Your task to perform on an android device: find snoozed emails in the gmail app Image 0: 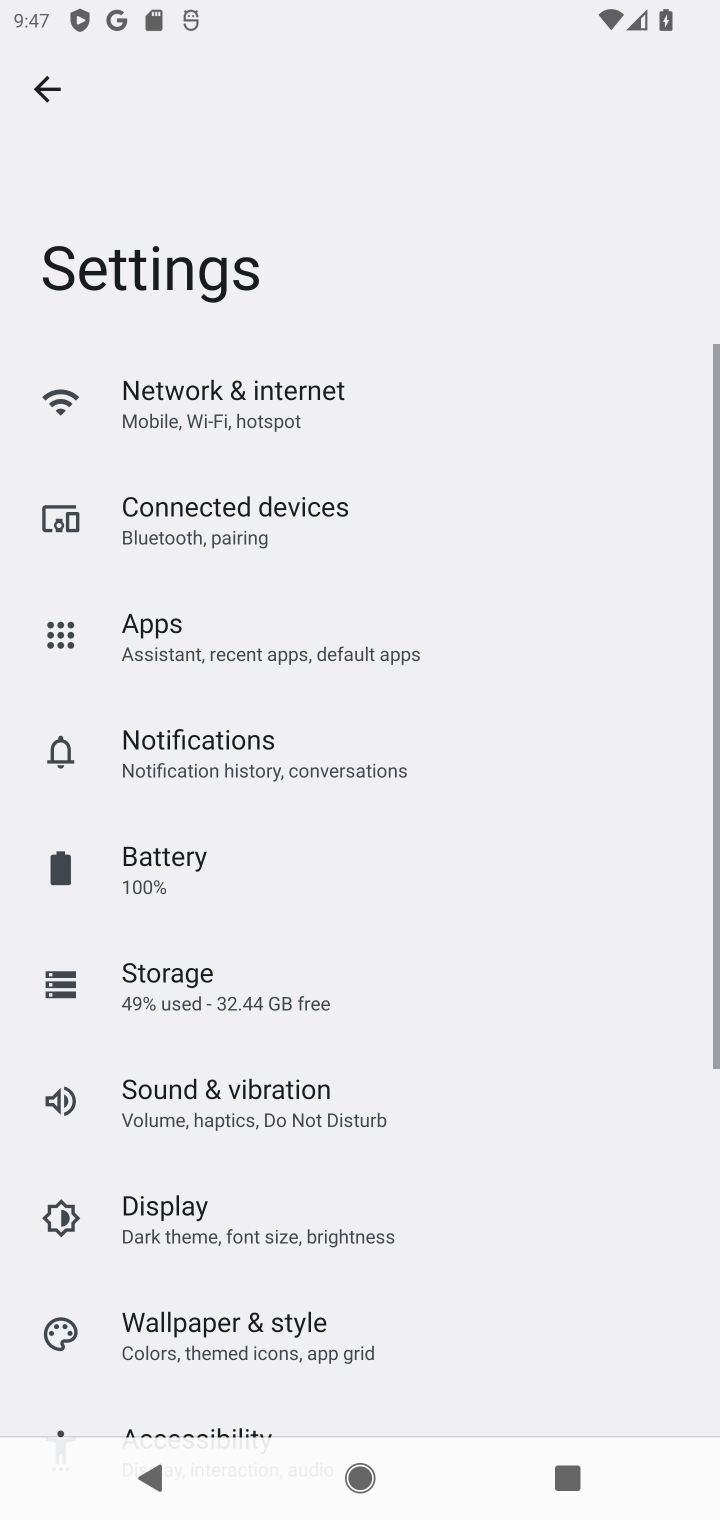
Step 0: press back button
Your task to perform on an android device: find snoozed emails in the gmail app Image 1: 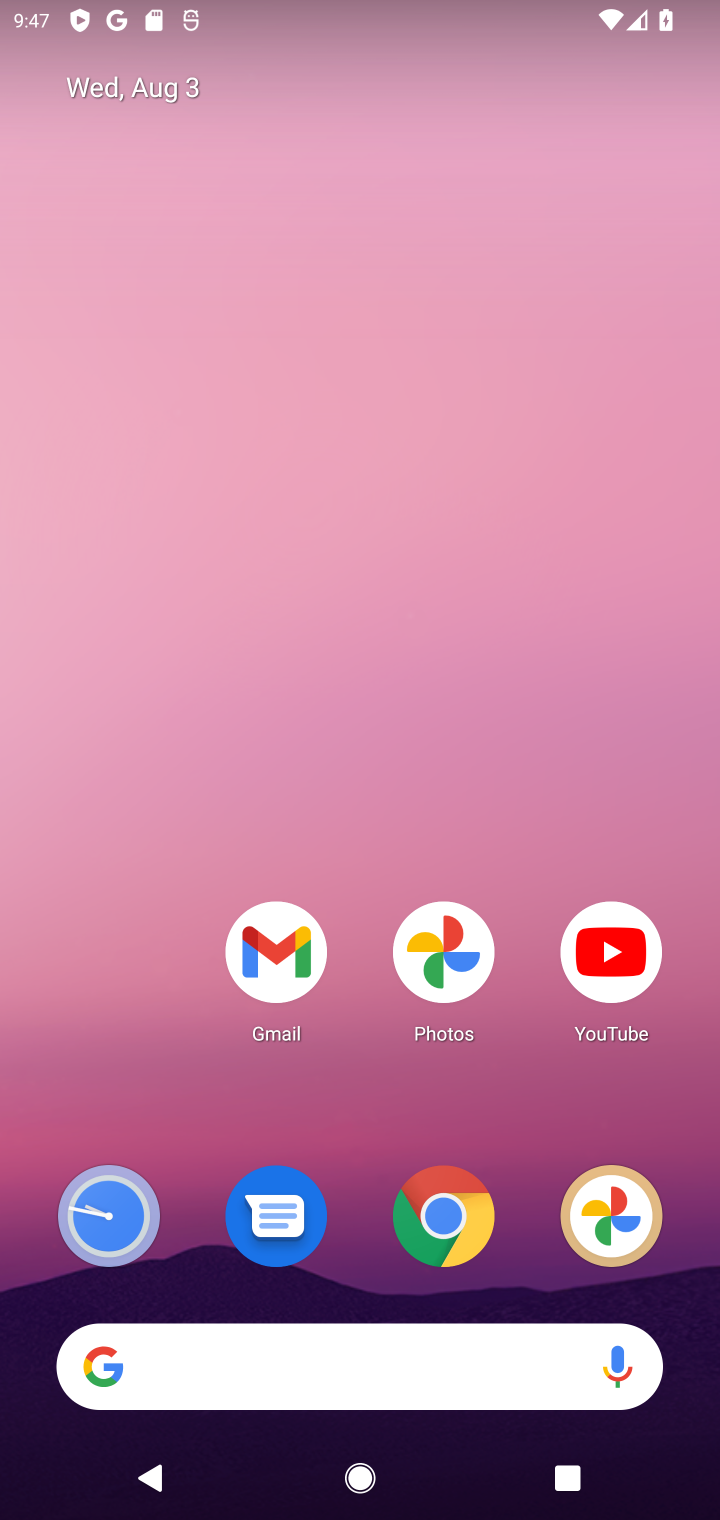
Step 1: click (289, 959)
Your task to perform on an android device: find snoozed emails in the gmail app Image 2: 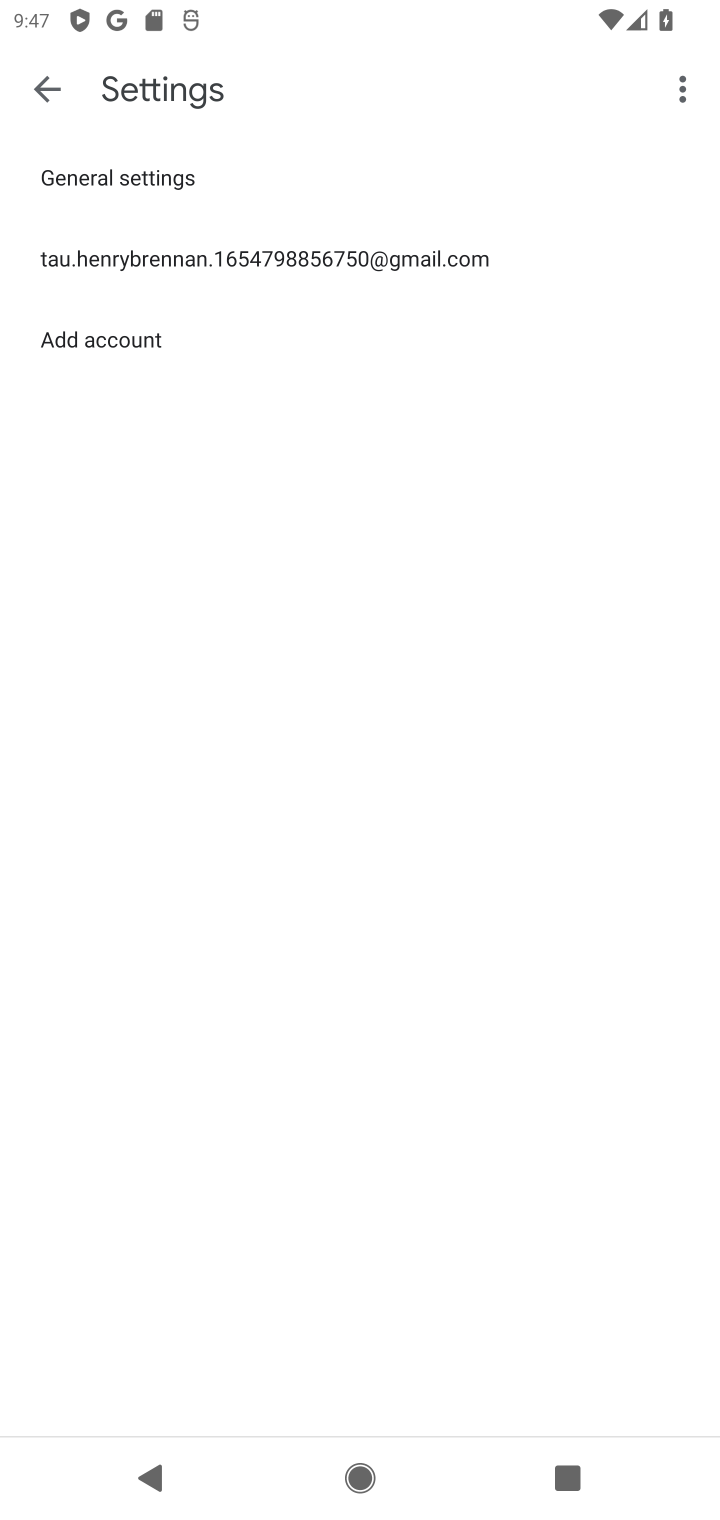
Step 2: click (45, 92)
Your task to perform on an android device: find snoozed emails in the gmail app Image 3: 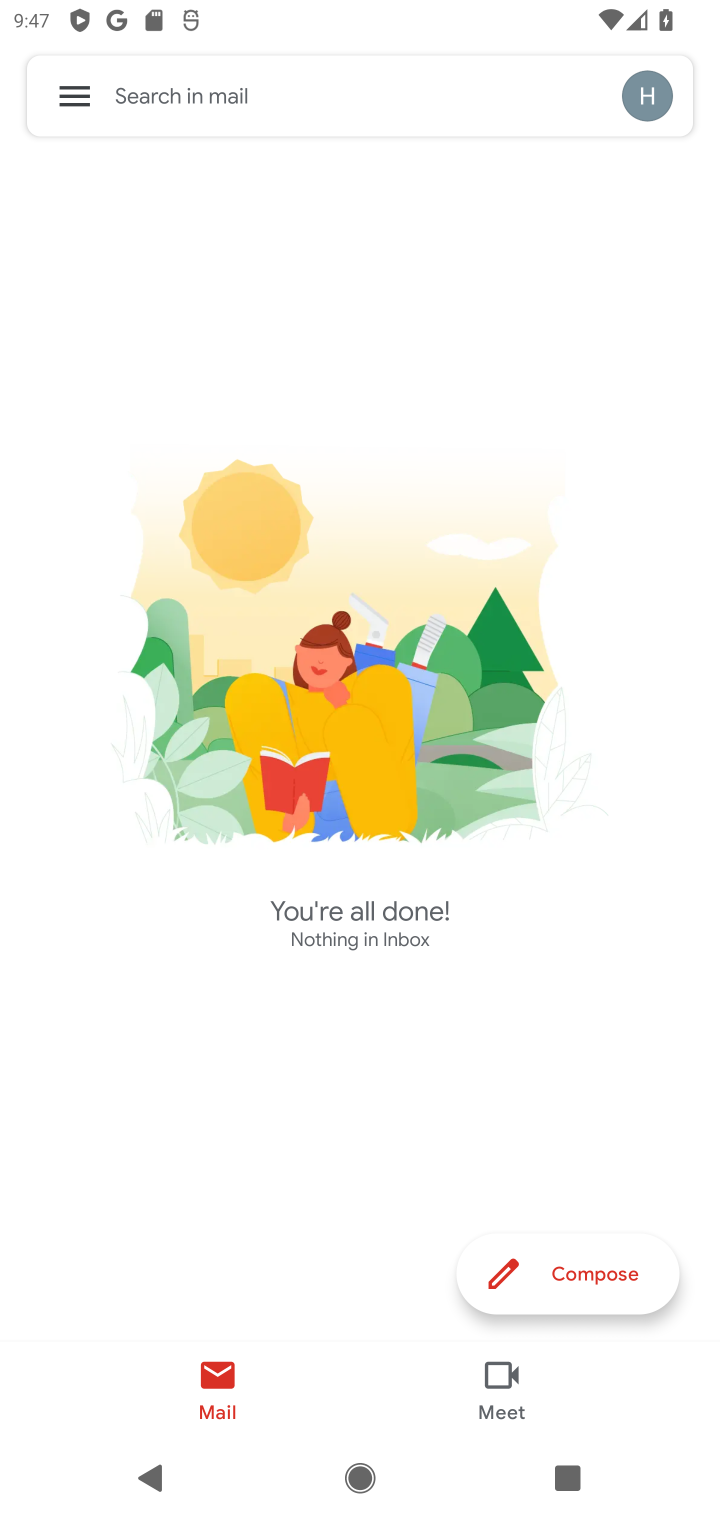
Step 3: click (68, 91)
Your task to perform on an android device: find snoozed emails in the gmail app Image 4: 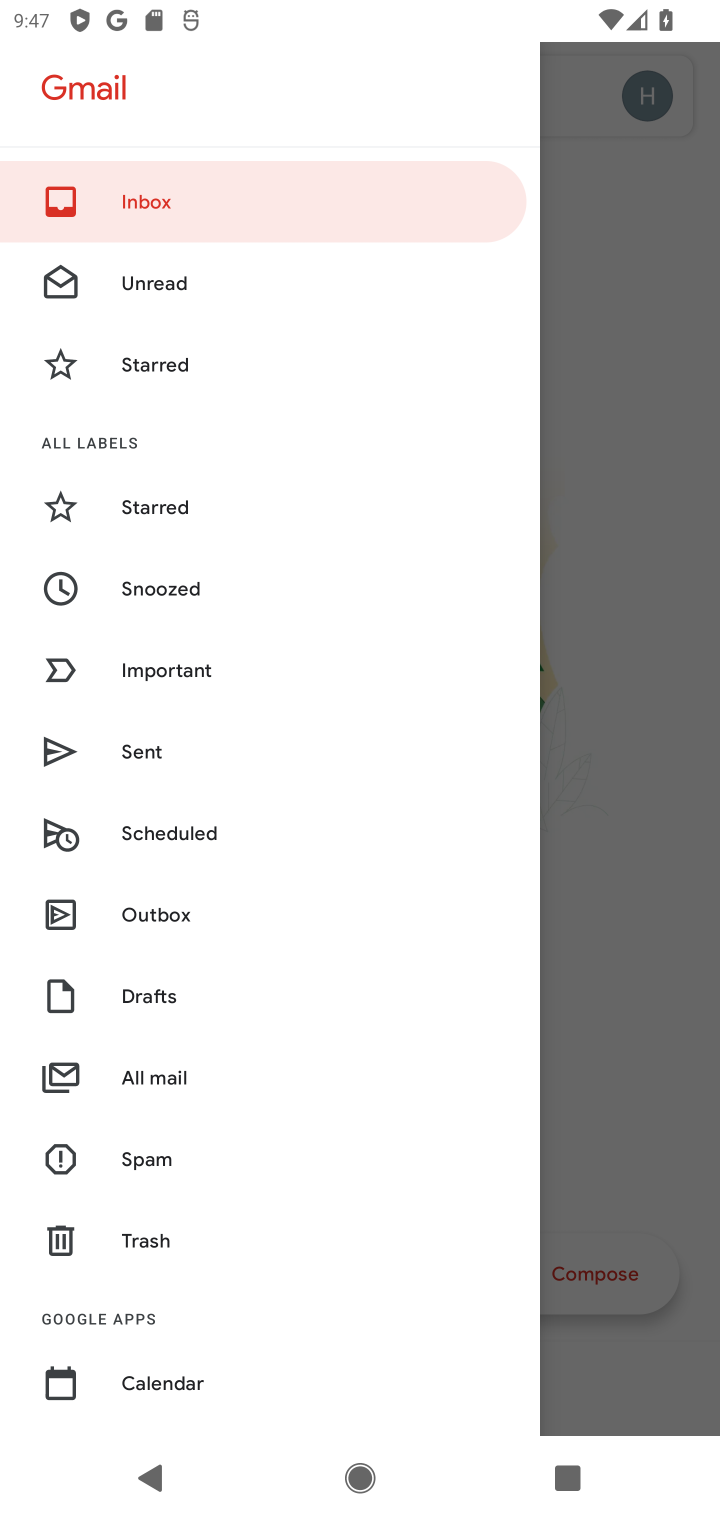
Step 4: click (186, 586)
Your task to perform on an android device: find snoozed emails in the gmail app Image 5: 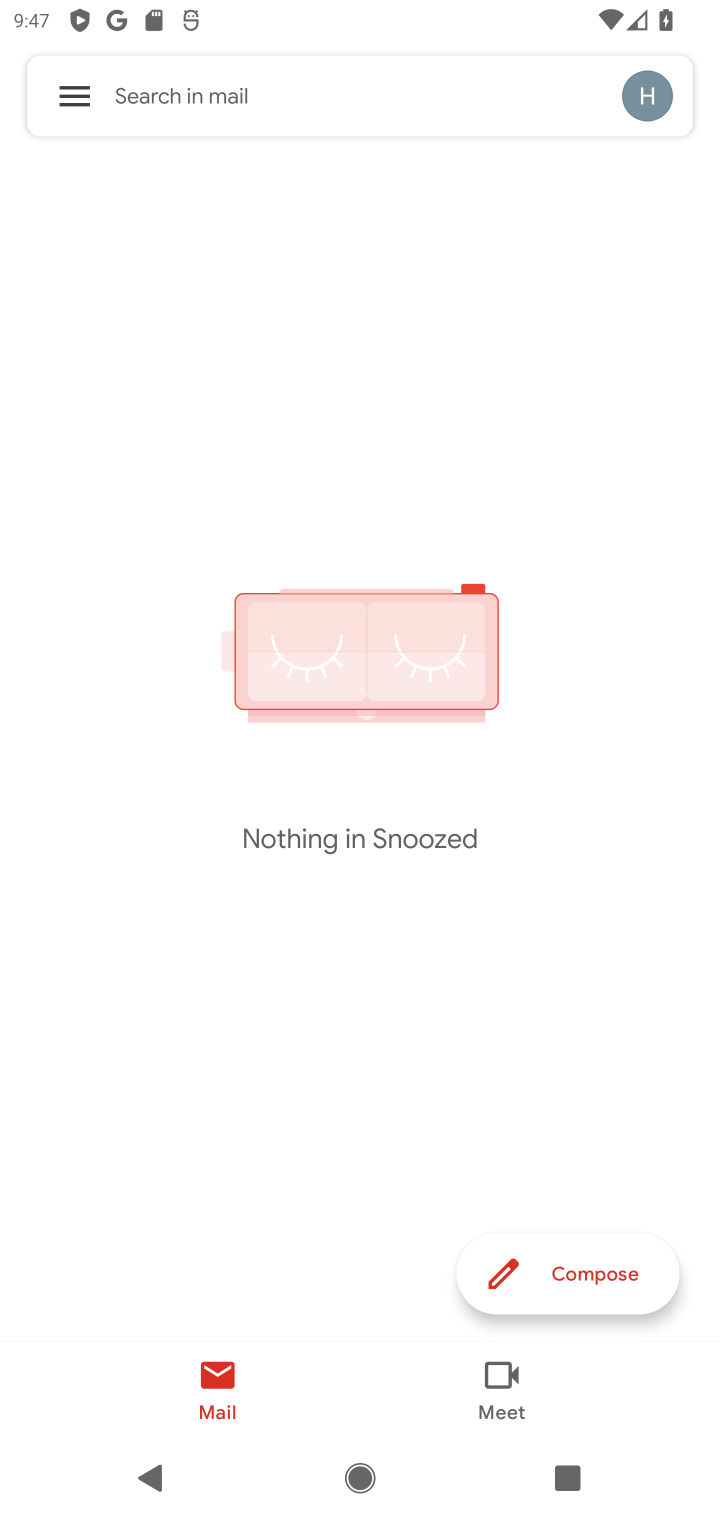
Step 5: task complete